Your task to perform on an android device: Open Youtube and go to the subscriptions tab Image 0: 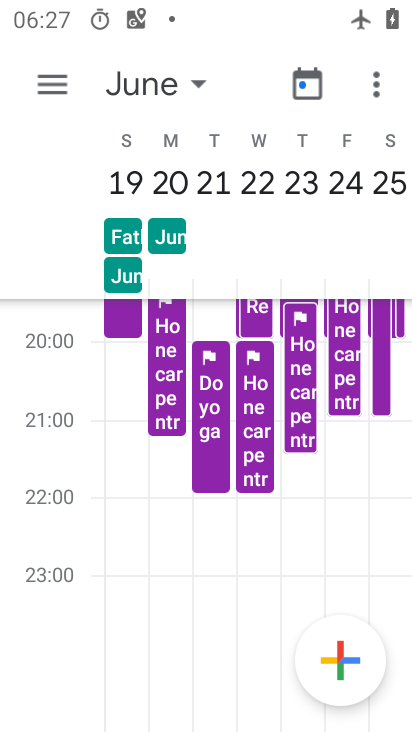
Step 0: press home button
Your task to perform on an android device: Open Youtube and go to the subscriptions tab Image 1: 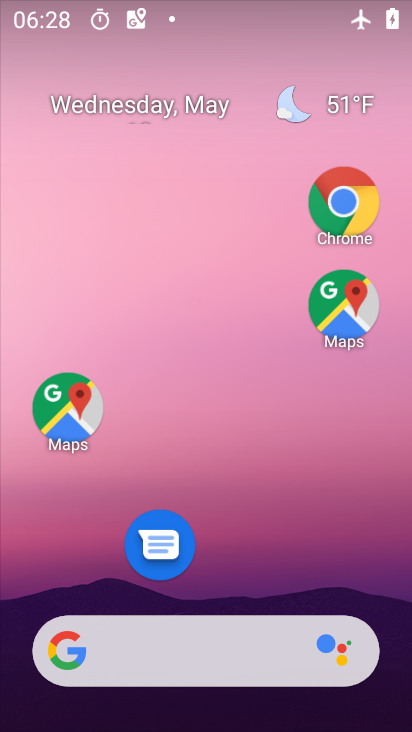
Step 1: drag from (215, 563) to (142, 47)
Your task to perform on an android device: Open Youtube and go to the subscriptions tab Image 2: 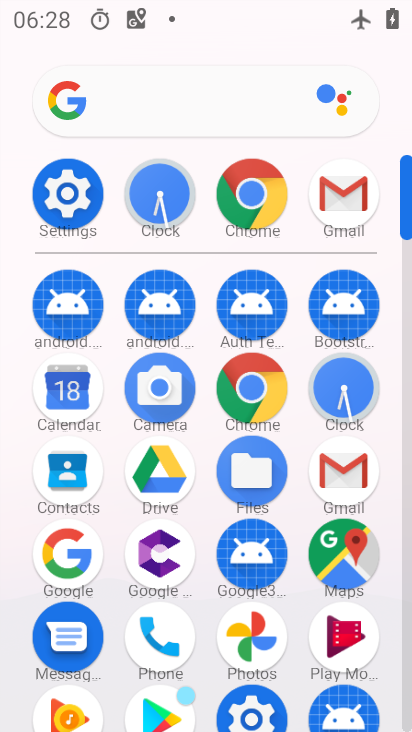
Step 2: drag from (247, 640) to (224, 236)
Your task to perform on an android device: Open Youtube and go to the subscriptions tab Image 3: 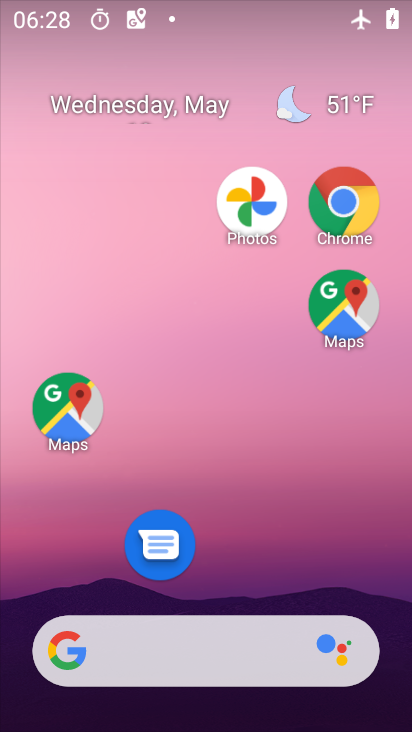
Step 3: press home button
Your task to perform on an android device: Open Youtube and go to the subscriptions tab Image 4: 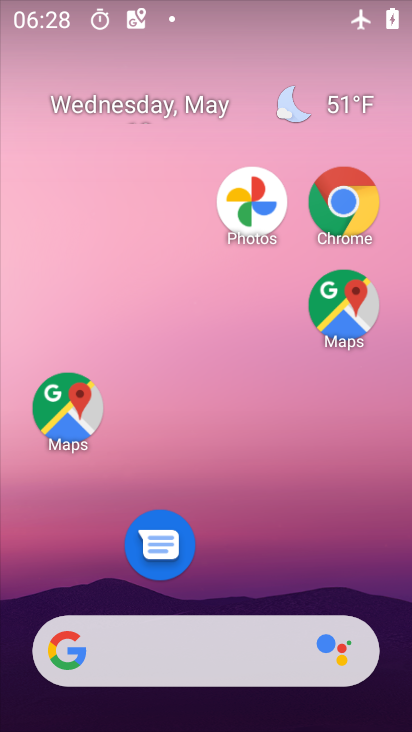
Step 4: drag from (242, 562) to (195, 6)
Your task to perform on an android device: Open Youtube and go to the subscriptions tab Image 5: 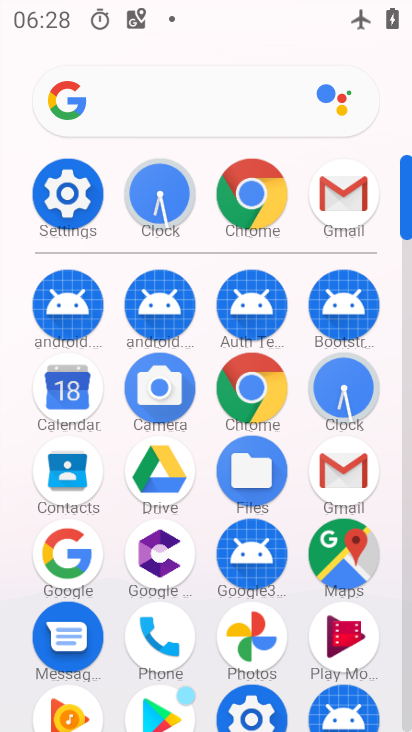
Step 5: drag from (207, 378) to (207, 272)
Your task to perform on an android device: Open Youtube and go to the subscriptions tab Image 6: 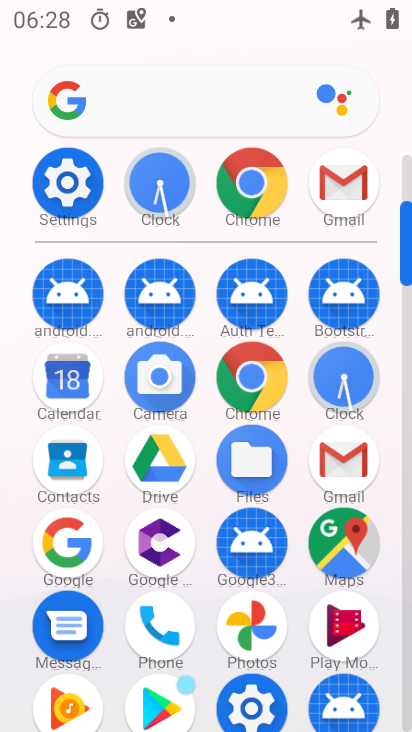
Step 6: click (292, 343)
Your task to perform on an android device: Open Youtube and go to the subscriptions tab Image 7: 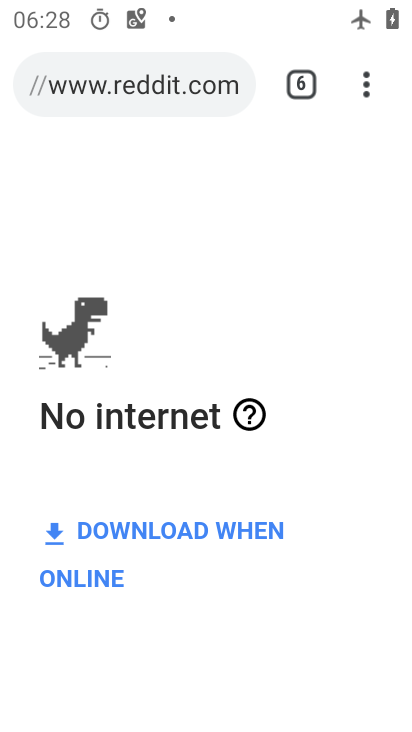
Step 7: press back button
Your task to perform on an android device: Open Youtube and go to the subscriptions tab Image 8: 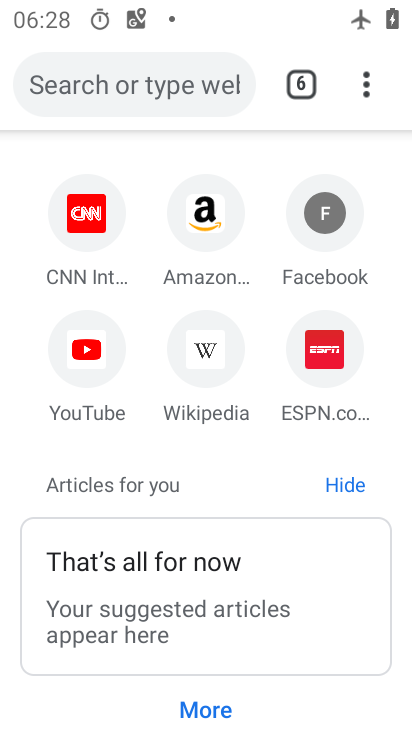
Step 8: press back button
Your task to perform on an android device: Open Youtube and go to the subscriptions tab Image 9: 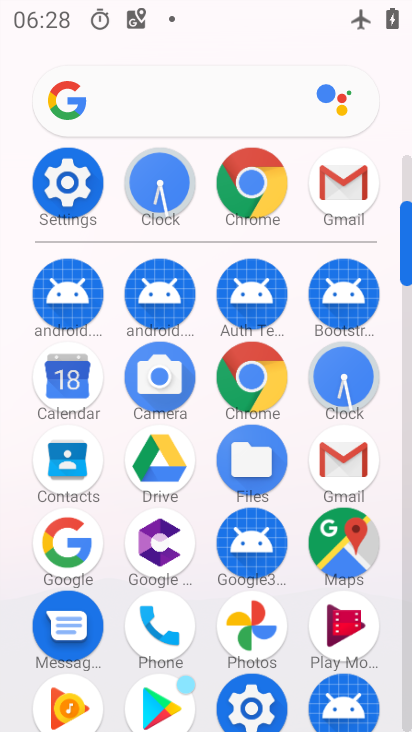
Step 9: drag from (269, 435) to (257, 219)
Your task to perform on an android device: Open Youtube and go to the subscriptions tab Image 10: 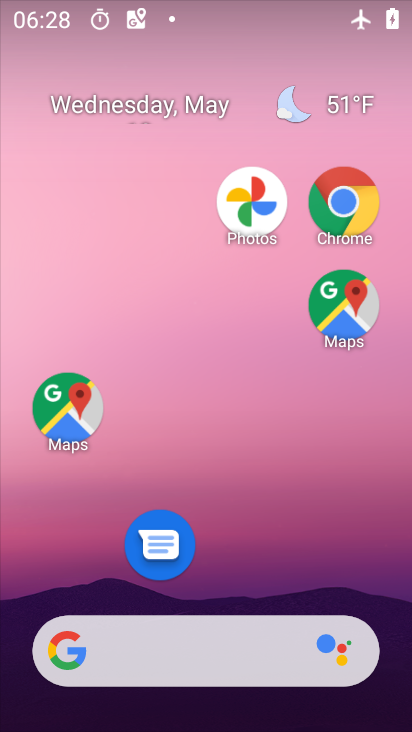
Step 10: drag from (266, 534) to (183, 30)
Your task to perform on an android device: Open Youtube and go to the subscriptions tab Image 11: 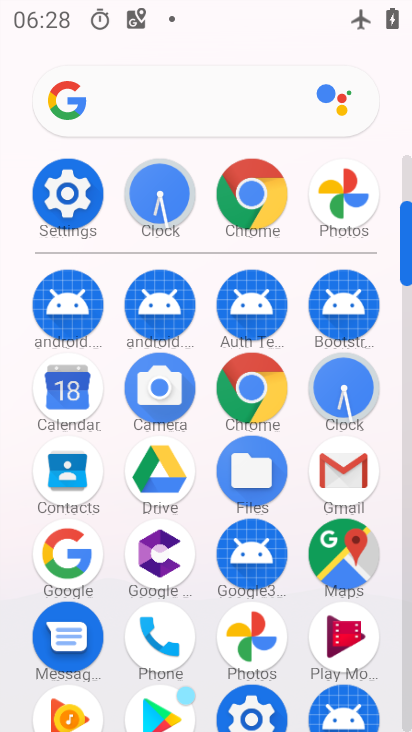
Step 11: drag from (153, 490) to (139, 38)
Your task to perform on an android device: Open Youtube and go to the subscriptions tab Image 12: 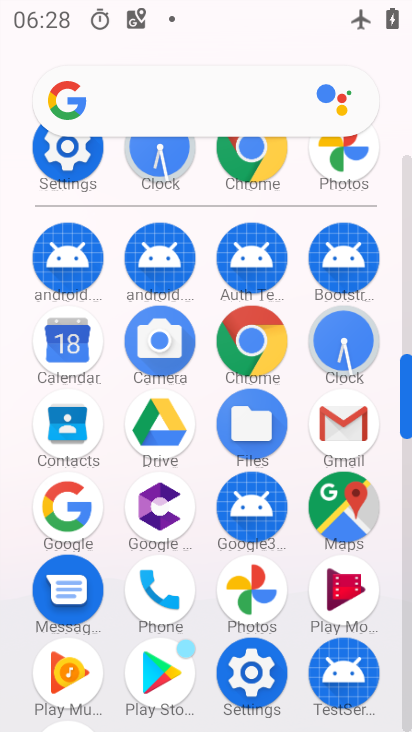
Step 12: click (172, 272)
Your task to perform on an android device: Open Youtube and go to the subscriptions tab Image 13: 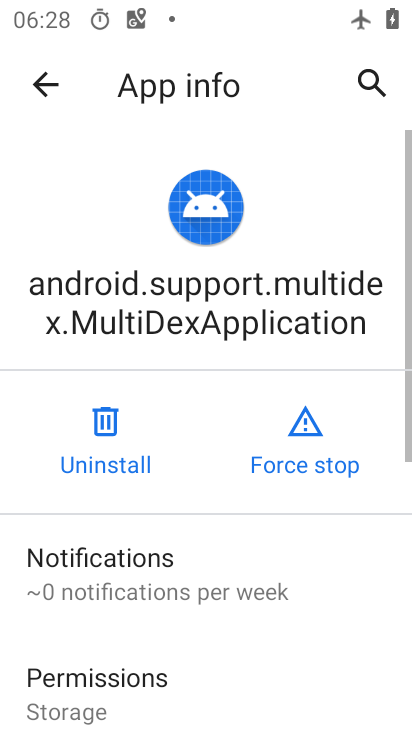
Step 13: drag from (230, 618) to (242, 515)
Your task to perform on an android device: Open Youtube and go to the subscriptions tab Image 14: 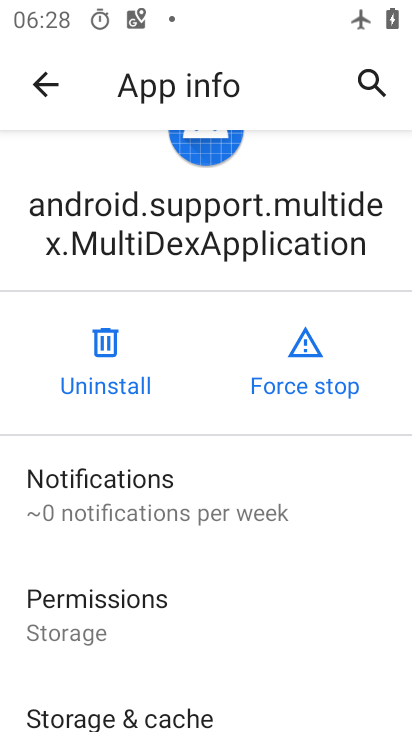
Step 14: click (32, 76)
Your task to perform on an android device: Open Youtube and go to the subscriptions tab Image 15: 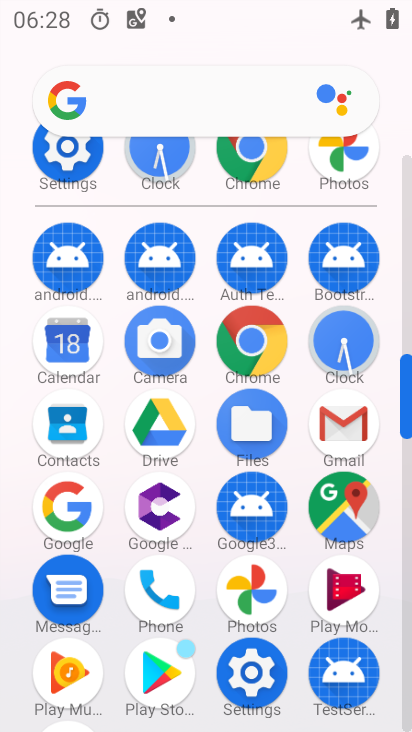
Step 15: drag from (243, 357) to (251, 315)
Your task to perform on an android device: Open Youtube and go to the subscriptions tab Image 16: 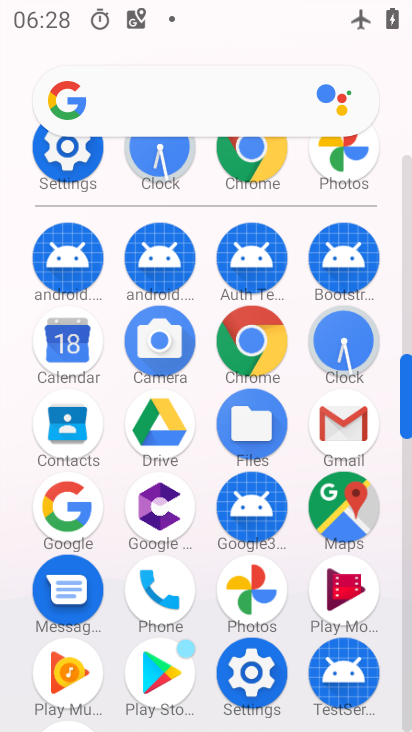
Step 16: drag from (280, 494) to (295, 301)
Your task to perform on an android device: Open Youtube and go to the subscriptions tab Image 17: 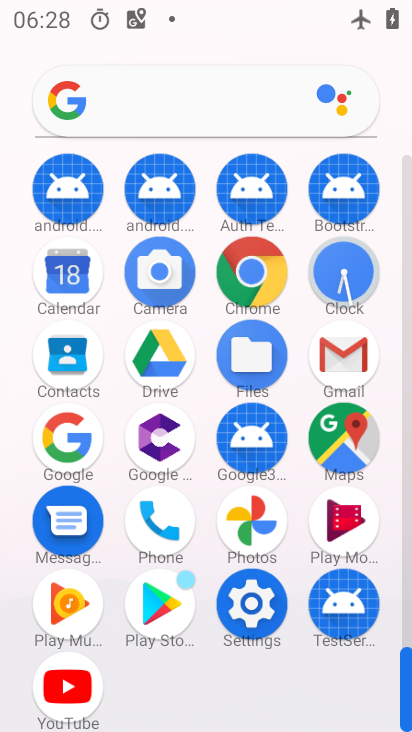
Step 17: click (55, 688)
Your task to perform on an android device: Open Youtube and go to the subscriptions tab Image 18: 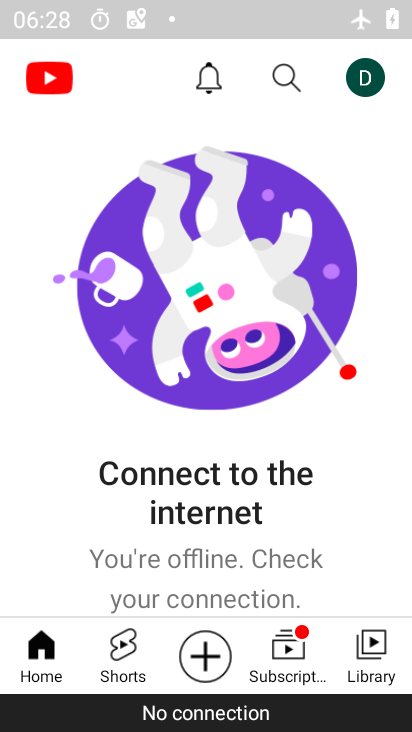
Step 18: click (281, 662)
Your task to perform on an android device: Open Youtube and go to the subscriptions tab Image 19: 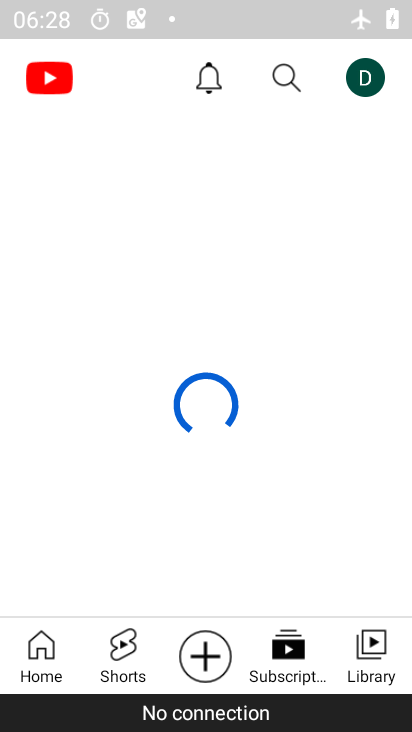
Step 19: task complete